Your task to perform on an android device: turn smart compose on in the gmail app Image 0: 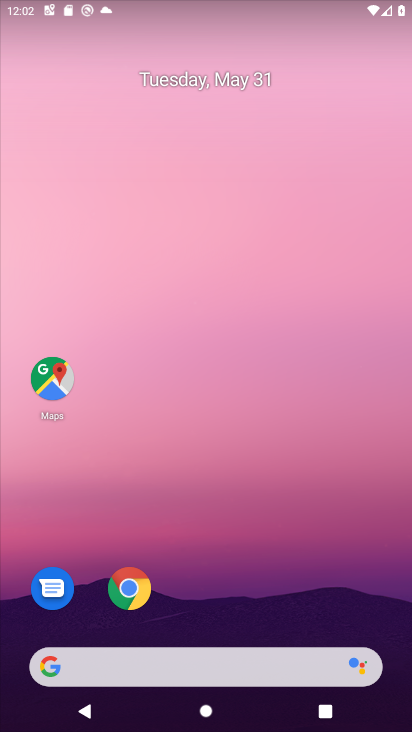
Step 0: drag from (159, 651) to (409, 14)
Your task to perform on an android device: turn smart compose on in the gmail app Image 1: 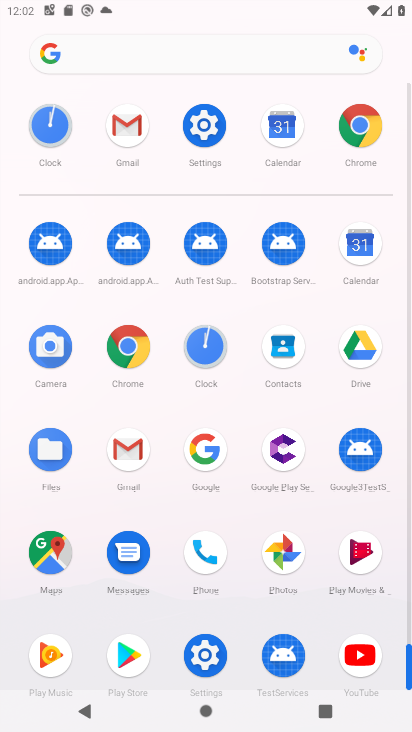
Step 1: click (124, 441)
Your task to perform on an android device: turn smart compose on in the gmail app Image 2: 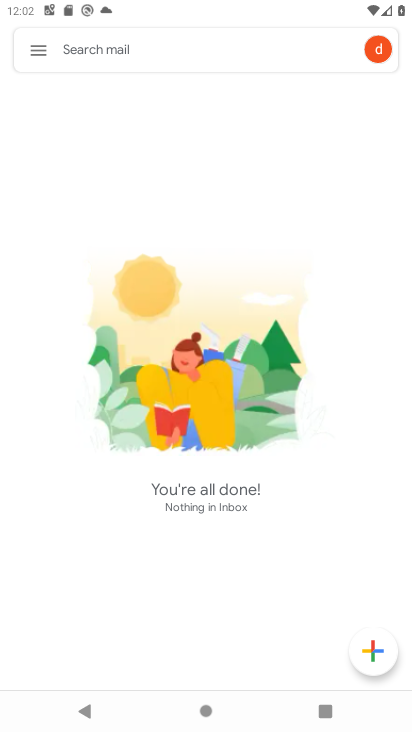
Step 2: click (46, 44)
Your task to perform on an android device: turn smart compose on in the gmail app Image 3: 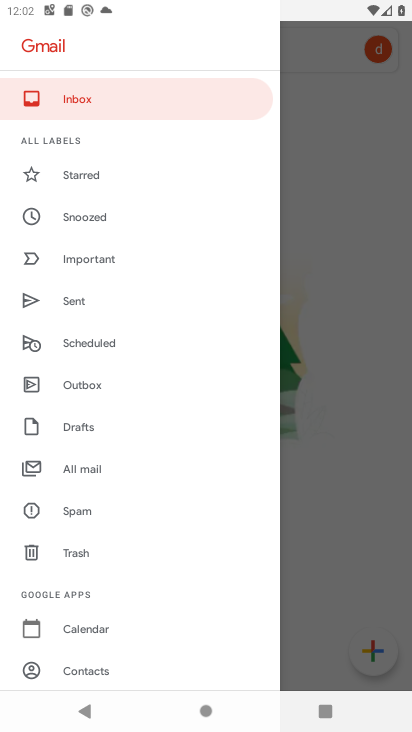
Step 3: drag from (90, 648) to (154, 267)
Your task to perform on an android device: turn smart compose on in the gmail app Image 4: 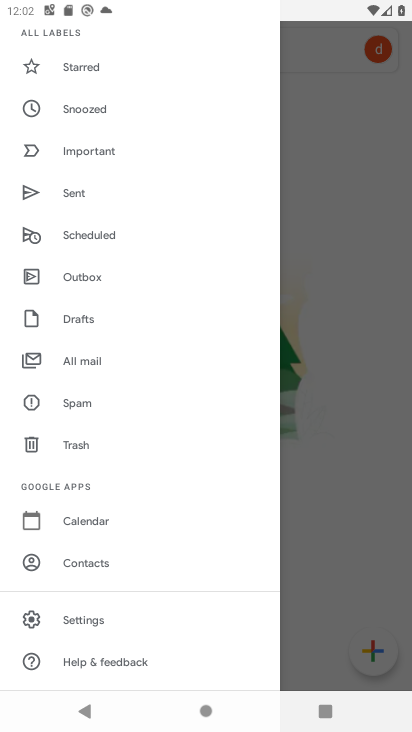
Step 4: click (114, 625)
Your task to perform on an android device: turn smart compose on in the gmail app Image 5: 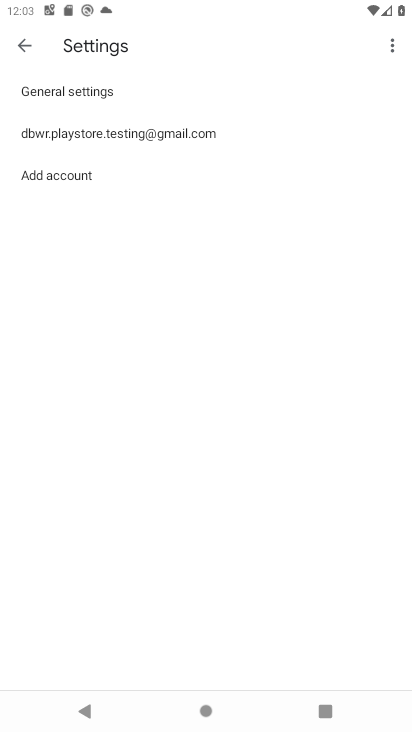
Step 5: click (111, 124)
Your task to perform on an android device: turn smart compose on in the gmail app Image 6: 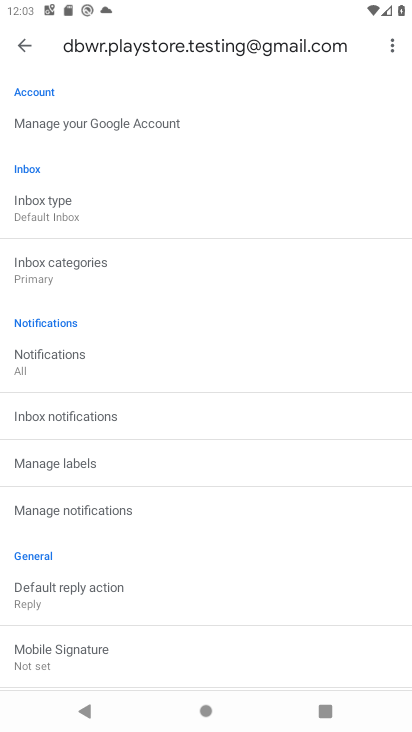
Step 6: task complete